Your task to perform on an android device: open a bookmark in the chrome app Image 0: 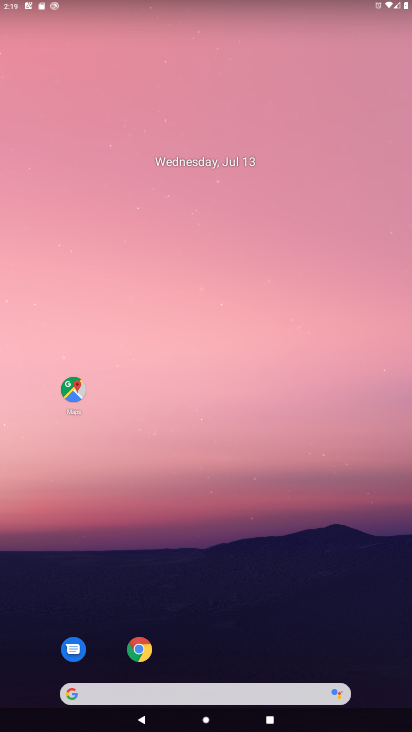
Step 0: drag from (316, 592) to (356, 35)
Your task to perform on an android device: open a bookmark in the chrome app Image 1: 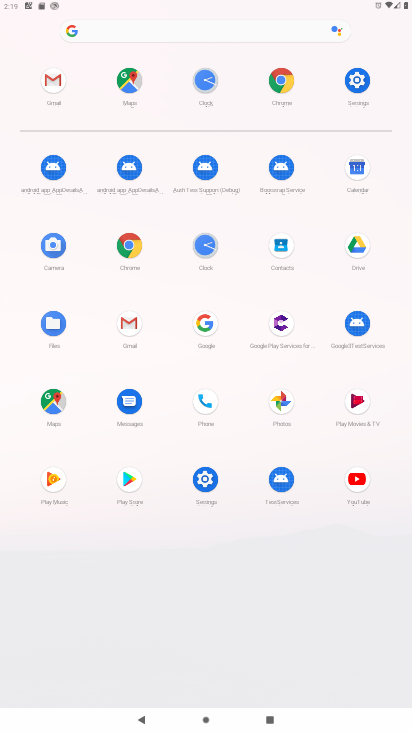
Step 1: click (125, 239)
Your task to perform on an android device: open a bookmark in the chrome app Image 2: 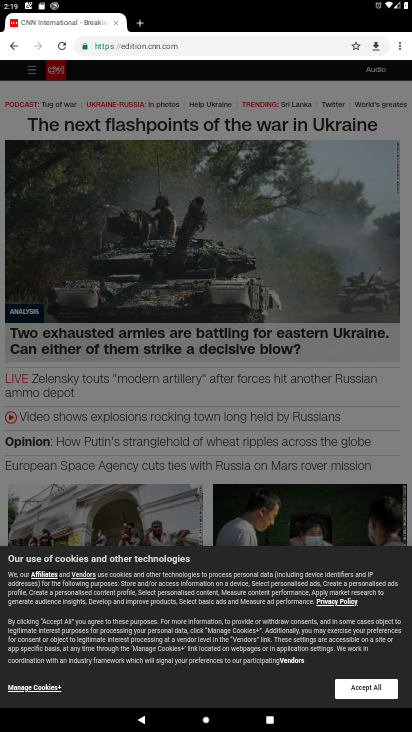
Step 2: task complete